Your task to perform on an android device: Open notification settings Image 0: 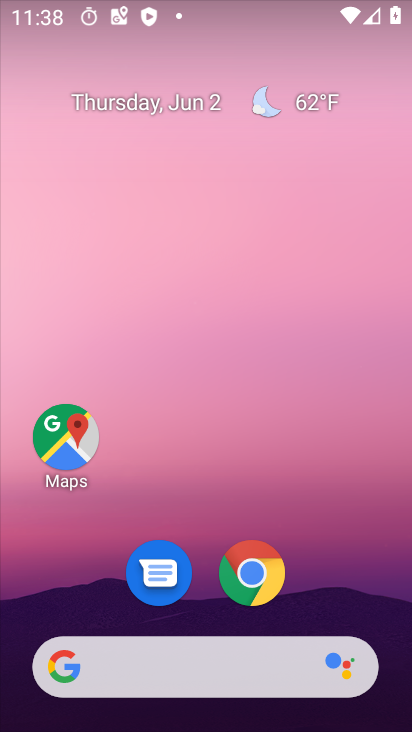
Step 0: drag from (308, 657) to (408, 519)
Your task to perform on an android device: Open notification settings Image 1: 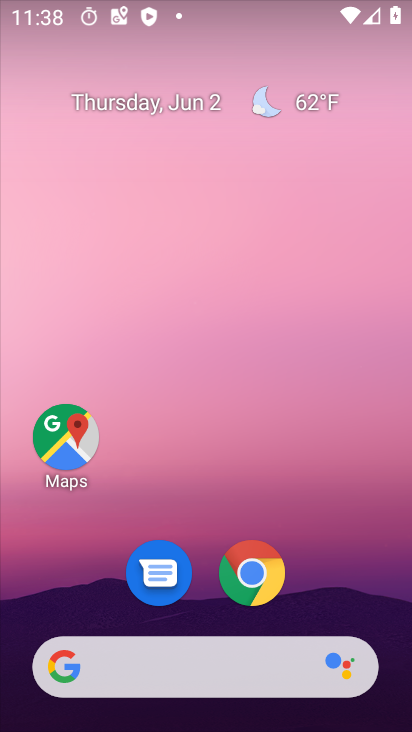
Step 1: drag from (265, 607) to (269, 0)
Your task to perform on an android device: Open notification settings Image 2: 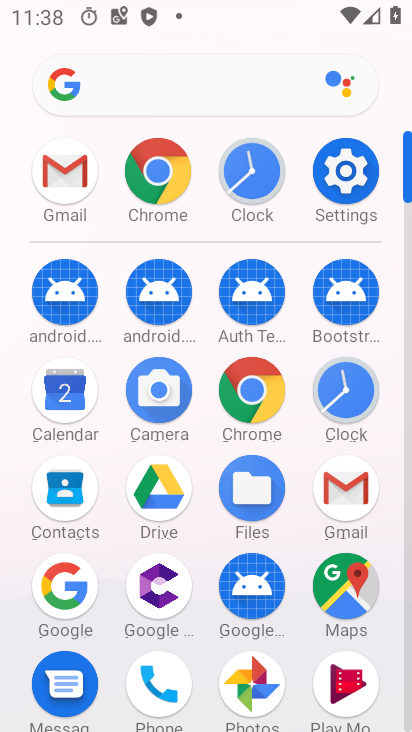
Step 2: click (343, 172)
Your task to perform on an android device: Open notification settings Image 3: 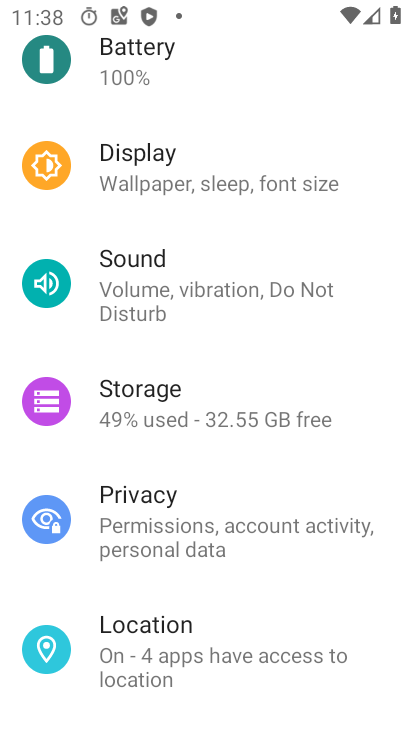
Step 3: drag from (204, 131) to (219, 354)
Your task to perform on an android device: Open notification settings Image 4: 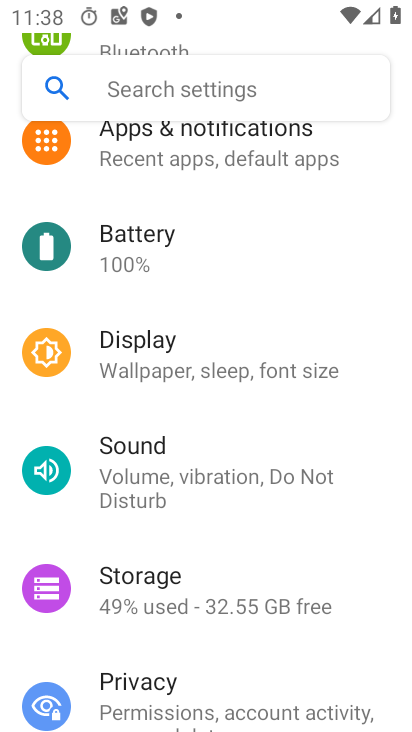
Step 4: click (207, 148)
Your task to perform on an android device: Open notification settings Image 5: 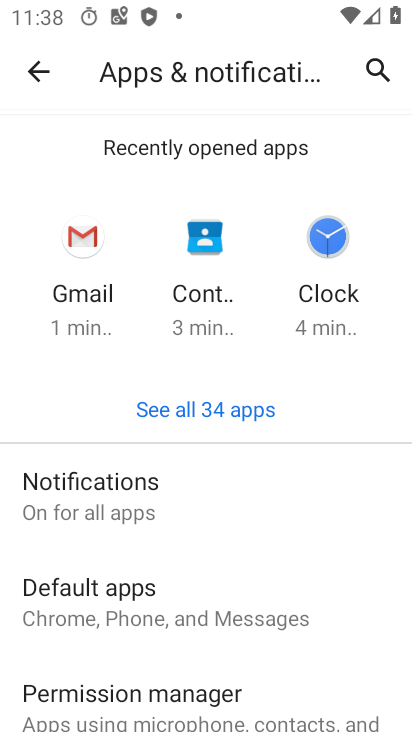
Step 5: task complete